Your task to perform on an android device: Open the stopwatch Image 0: 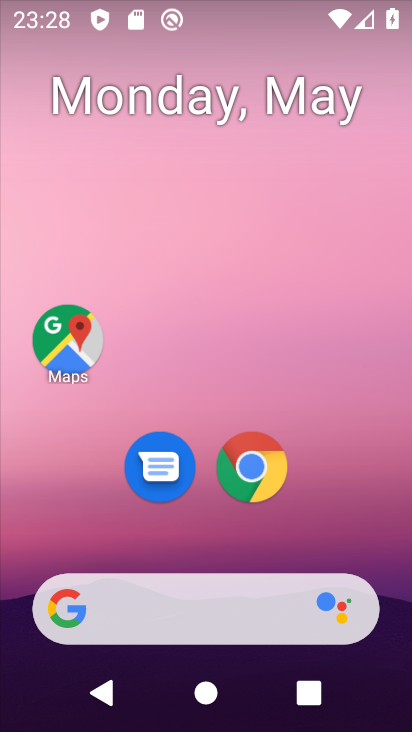
Step 0: drag from (342, 534) to (314, 6)
Your task to perform on an android device: Open the stopwatch Image 1: 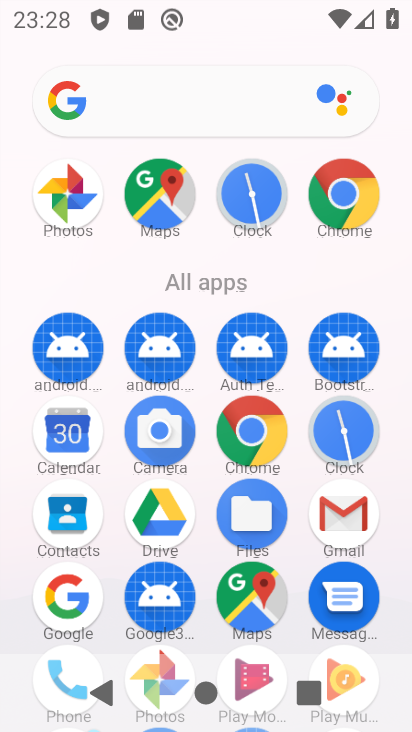
Step 1: click (269, 202)
Your task to perform on an android device: Open the stopwatch Image 2: 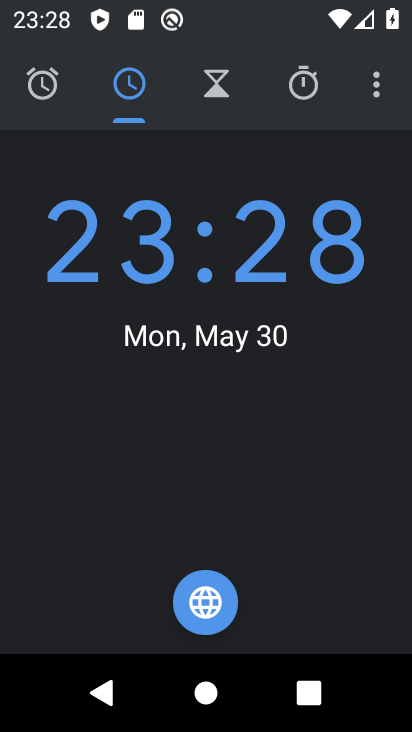
Step 2: click (298, 111)
Your task to perform on an android device: Open the stopwatch Image 3: 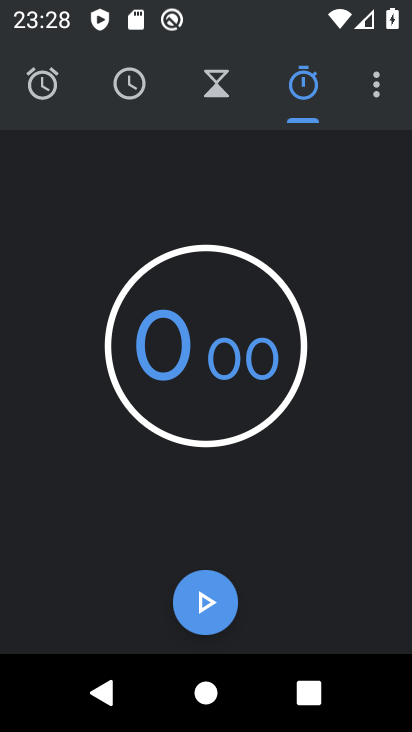
Step 3: task complete